Your task to perform on an android device: set the timer Image 0: 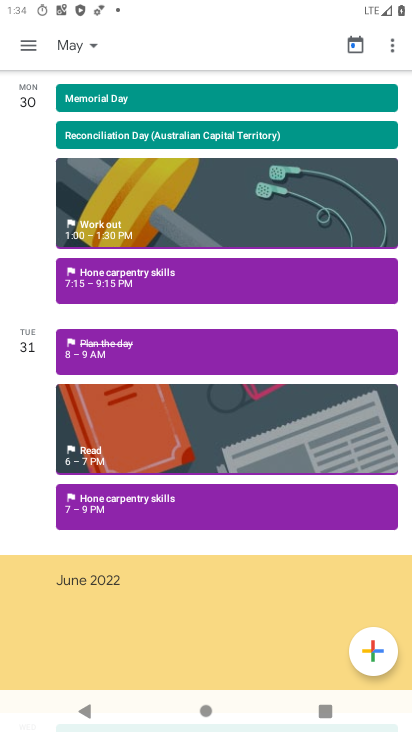
Step 0: press home button
Your task to perform on an android device: set the timer Image 1: 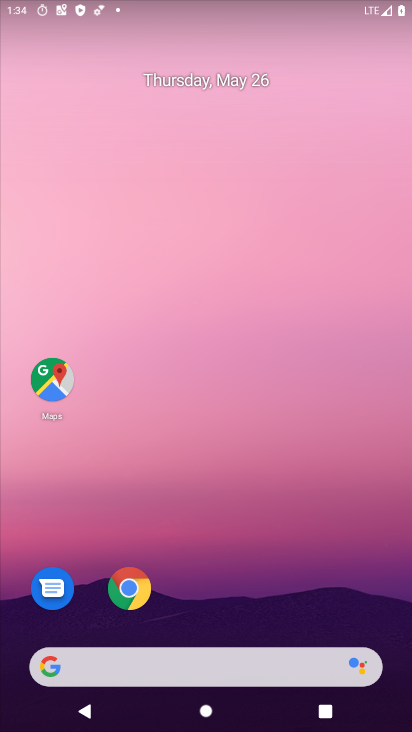
Step 1: drag from (402, 699) to (228, 7)
Your task to perform on an android device: set the timer Image 2: 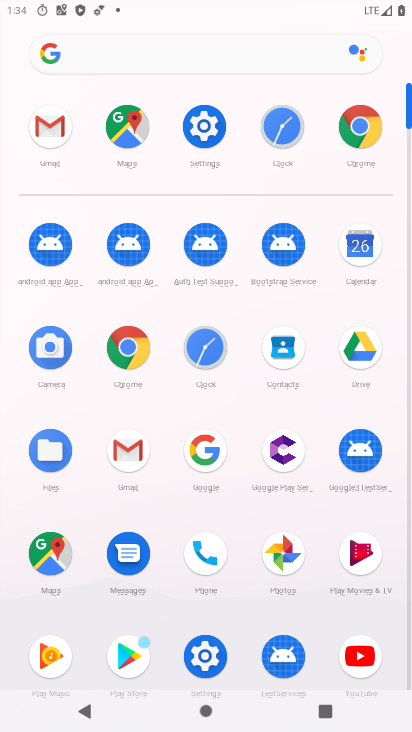
Step 2: click (213, 343)
Your task to perform on an android device: set the timer Image 3: 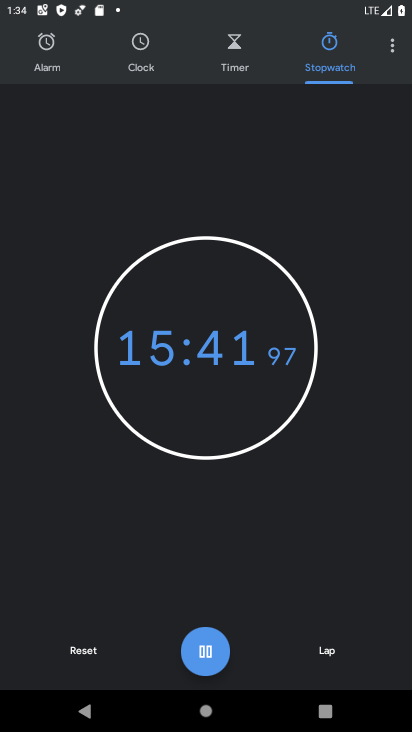
Step 3: click (85, 653)
Your task to perform on an android device: set the timer Image 4: 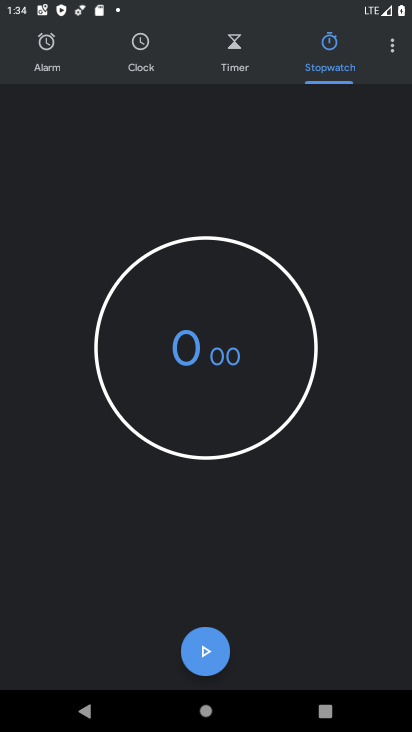
Step 4: click (212, 637)
Your task to perform on an android device: set the timer Image 5: 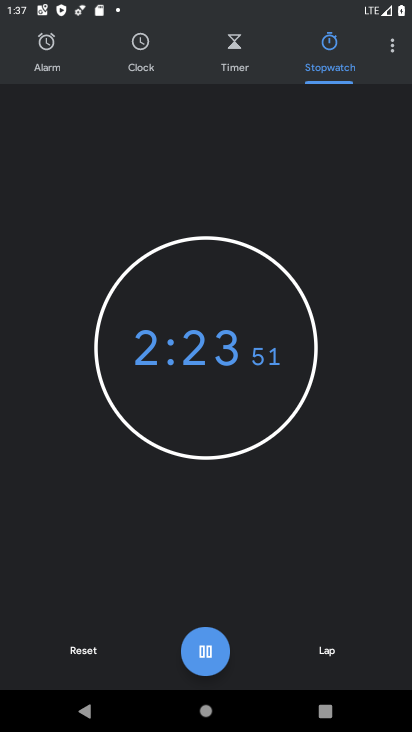
Step 5: task complete